Your task to perform on an android device: read, delete, or share a saved page in the chrome app Image 0: 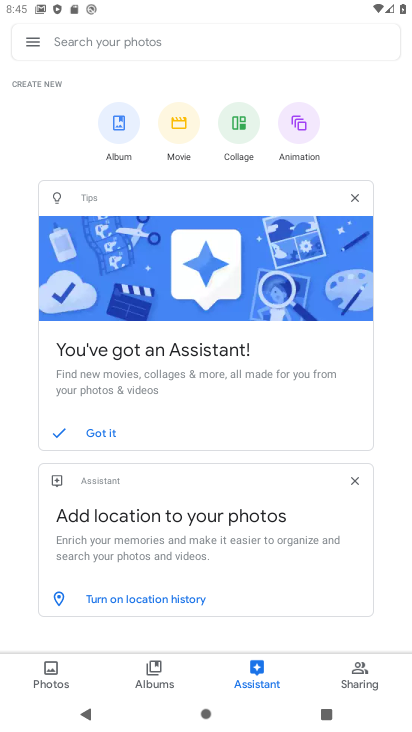
Step 0: press back button
Your task to perform on an android device: read, delete, or share a saved page in the chrome app Image 1: 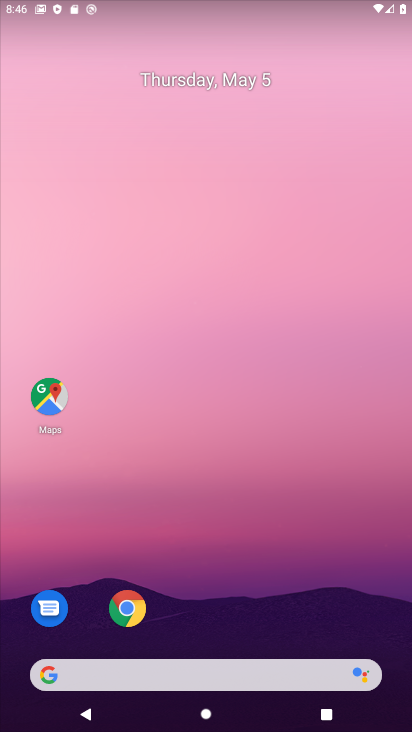
Step 1: click (123, 606)
Your task to perform on an android device: read, delete, or share a saved page in the chrome app Image 2: 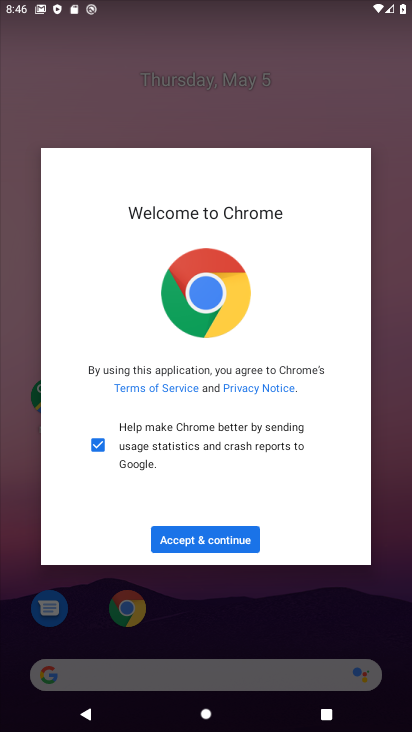
Step 2: click (210, 534)
Your task to perform on an android device: read, delete, or share a saved page in the chrome app Image 3: 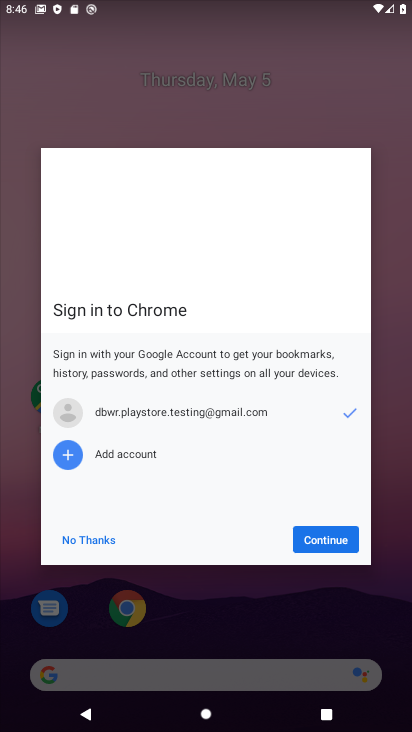
Step 3: click (303, 531)
Your task to perform on an android device: read, delete, or share a saved page in the chrome app Image 4: 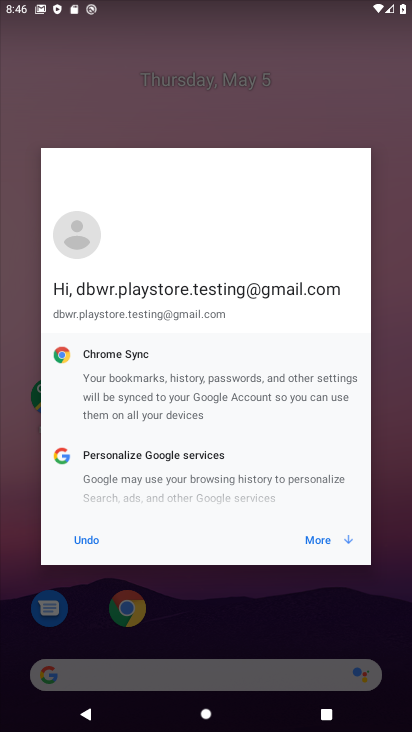
Step 4: click (311, 537)
Your task to perform on an android device: read, delete, or share a saved page in the chrome app Image 5: 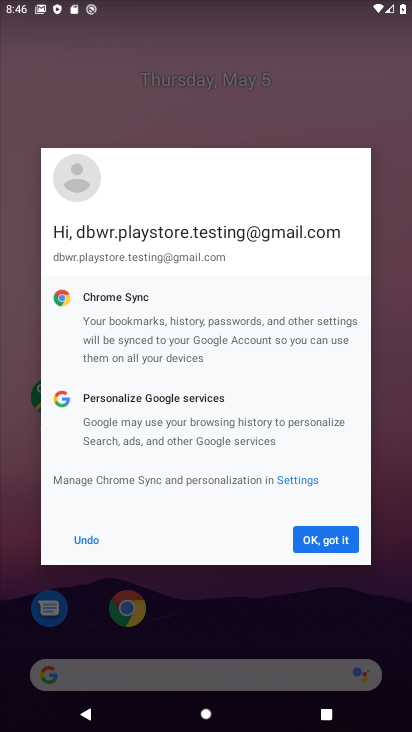
Step 5: click (312, 536)
Your task to perform on an android device: read, delete, or share a saved page in the chrome app Image 6: 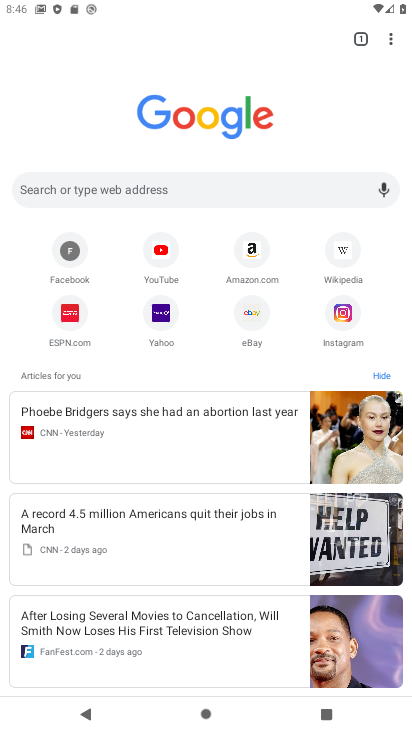
Step 6: task complete